Your task to perform on an android device: open a bookmark in the chrome app Image 0: 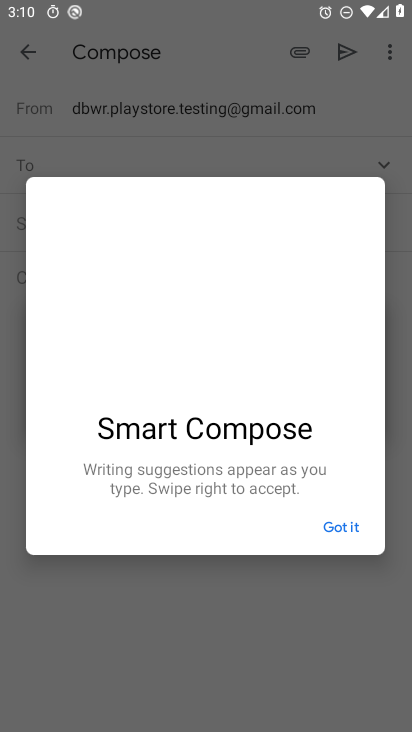
Step 0: press home button
Your task to perform on an android device: open a bookmark in the chrome app Image 1: 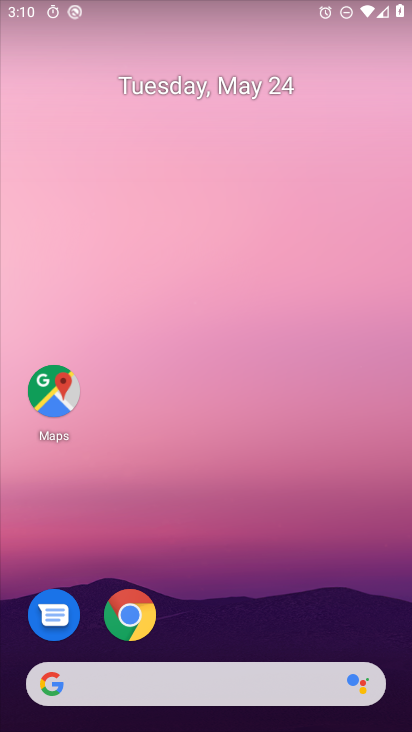
Step 1: drag from (246, 657) to (227, 261)
Your task to perform on an android device: open a bookmark in the chrome app Image 2: 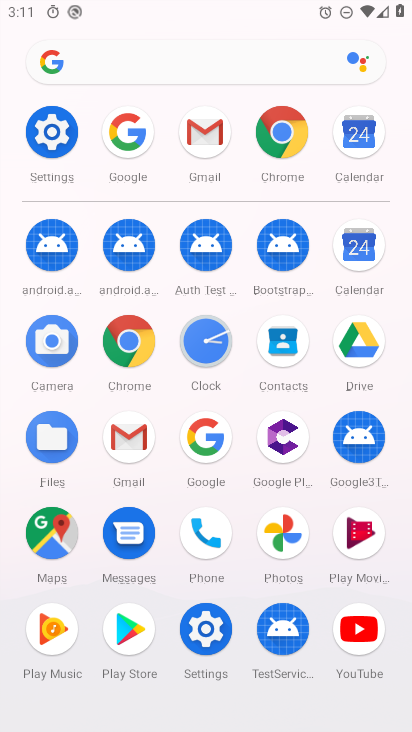
Step 2: click (143, 338)
Your task to perform on an android device: open a bookmark in the chrome app Image 3: 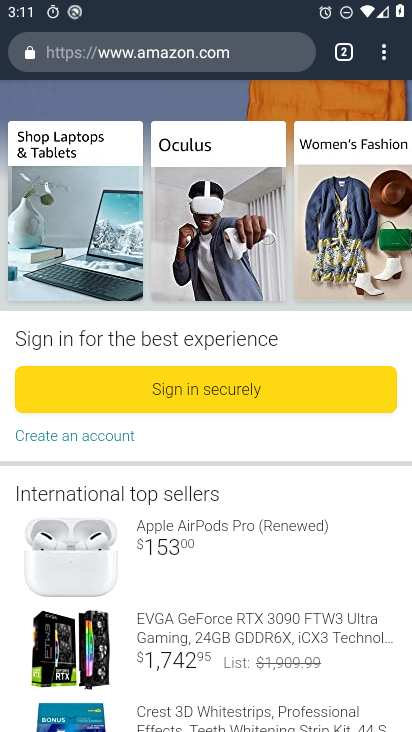
Step 3: click (379, 52)
Your task to perform on an android device: open a bookmark in the chrome app Image 4: 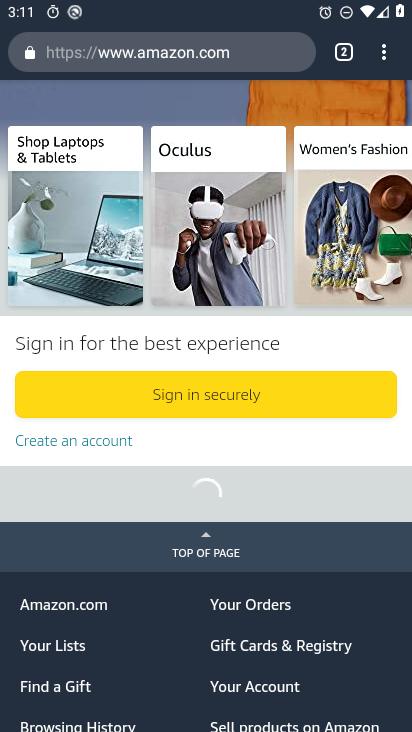
Step 4: click (384, 58)
Your task to perform on an android device: open a bookmark in the chrome app Image 5: 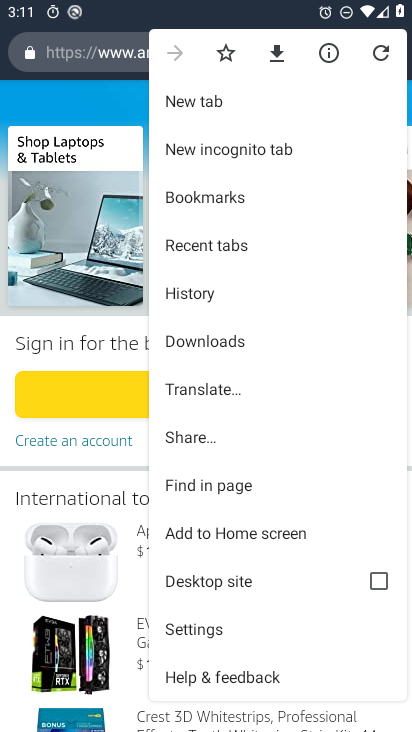
Step 5: click (204, 198)
Your task to perform on an android device: open a bookmark in the chrome app Image 6: 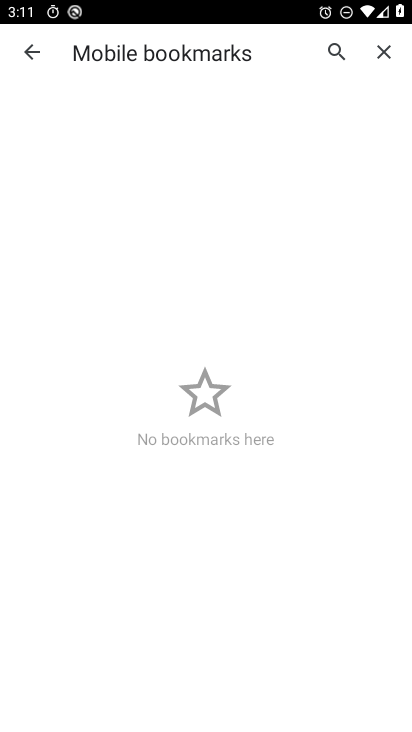
Step 6: task complete